Your task to perform on an android device: Go to Amazon Image 0: 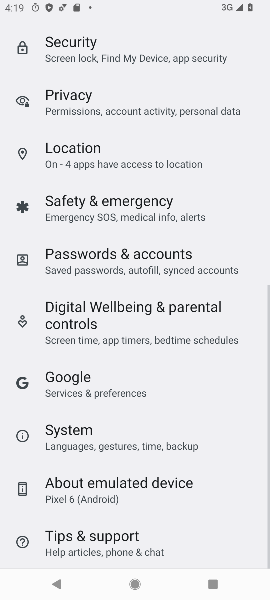
Step 0: press home button
Your task to perform on an android device: Go to Amazon Image 1: 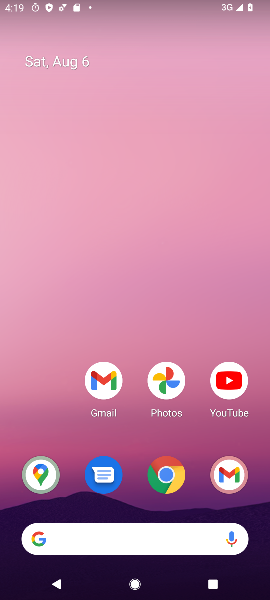
Step 1: click (72, 540)
Your task to perform on an android device: Go to Amazon Image 2: 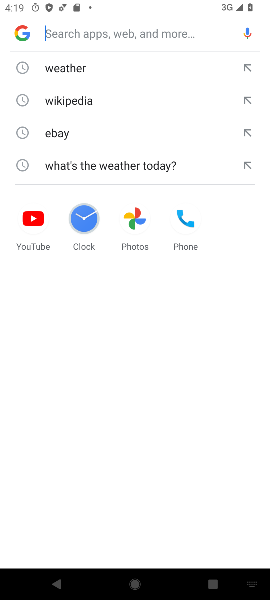
Step 2: type "Amazon"
Your task to perform on an android device: Go to Amazon Image 3: 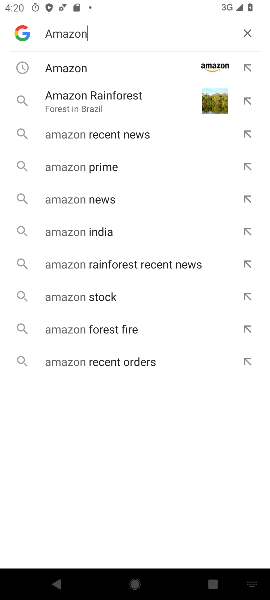
Step 3: click (80, 65)
Your task to perform on an android device: Go to Amazon Image 4: 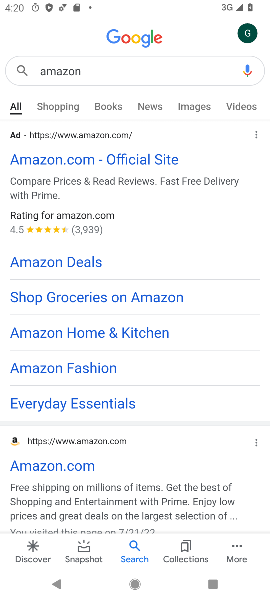
Step 4: task complete